Your task to perform on an android device: Go to accessibility settings Image 0: 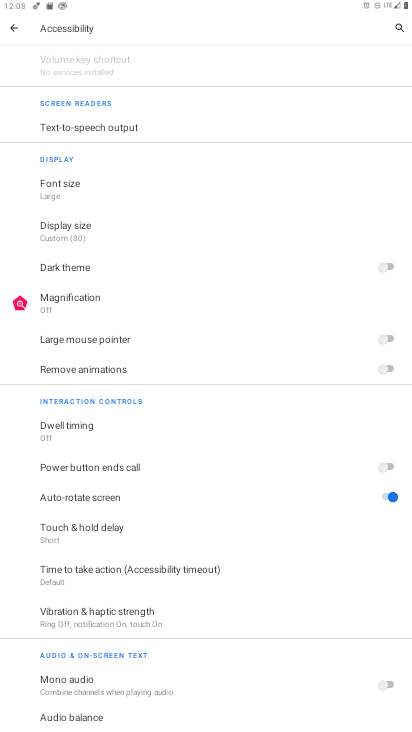
Step 0: press home button
Your task to perform on an android device: Go to accessibility settings Image 1: 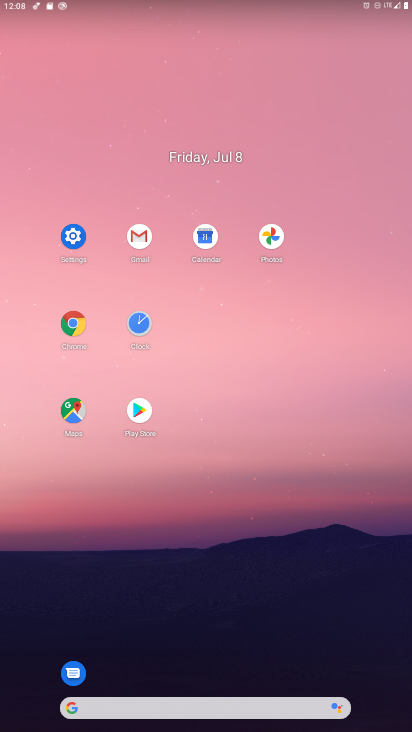
Step 1: click (75, 238)
Your task to perform on an android device: Go to accessibility settings Image 2: 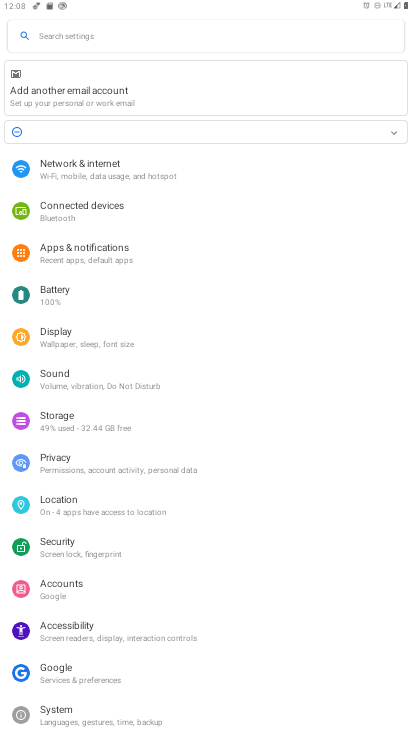
Step 2: drag from (243, 625) to (299, 290)
Your task to perform on an android device: Go to accessibility settings Image 3: 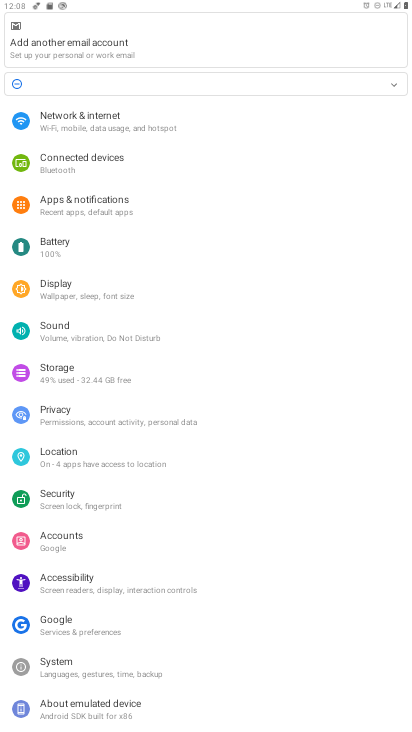
Step 3: click (139, 590)
Your task to perform on an android device: Go to accessibility settings Image 4: 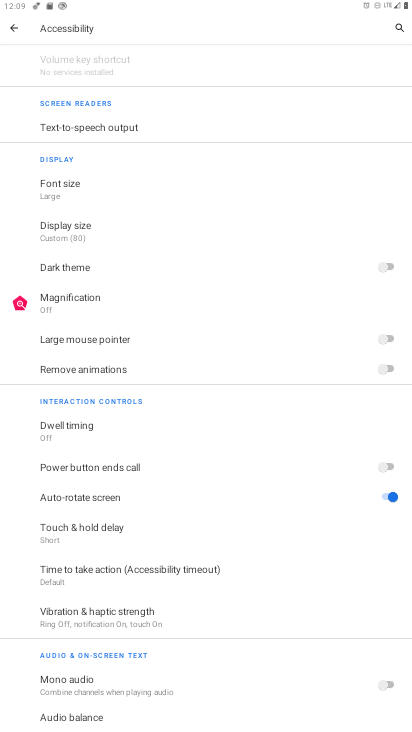
Step 4: drag from (141, 588) to (217, 194)
Your task to perform on an android device: Go to accessibility settings Image 5: 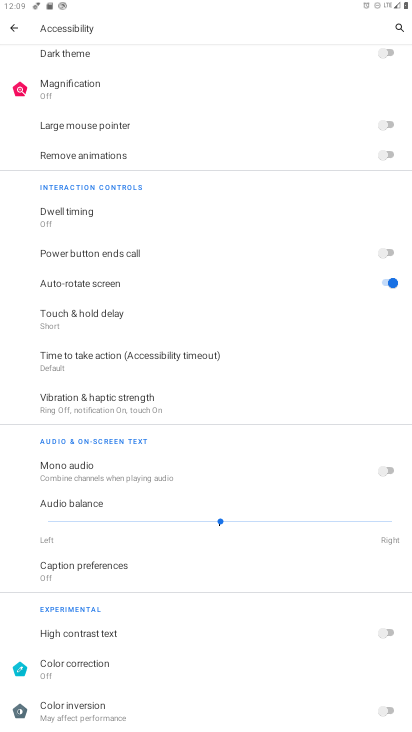
Step 5: press home button
Your task to perform on an android device: Go to accessibility settings Image 6: 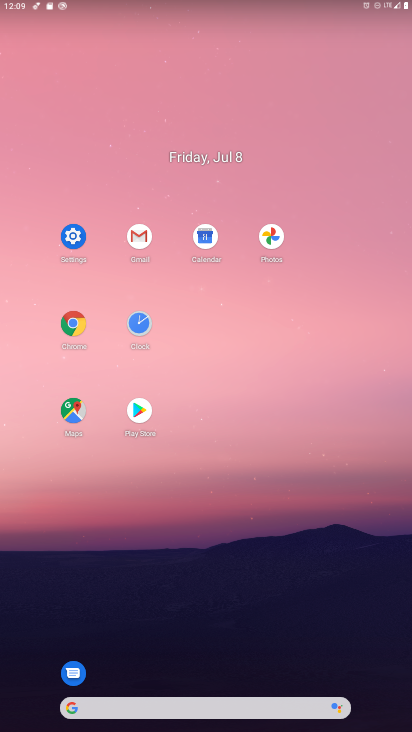
Step 6: click (75, 243)
Your task to perform on an android device: Go to accessibility settings Image 7: 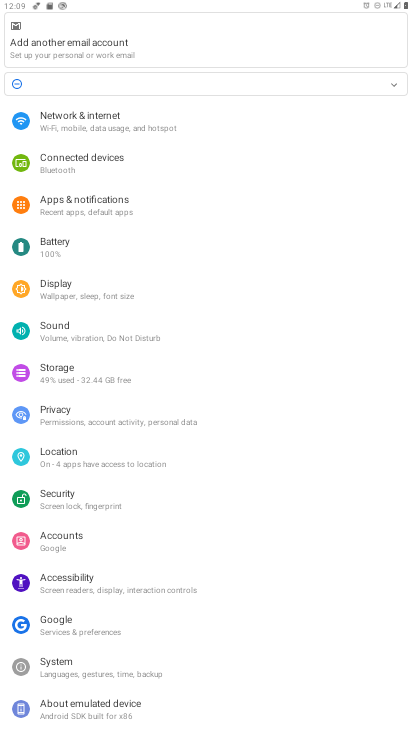
Step 7: drag from (199, 569) to (235, 341)
Your task to perform on an android device: Go to accessibility settings Image 8: 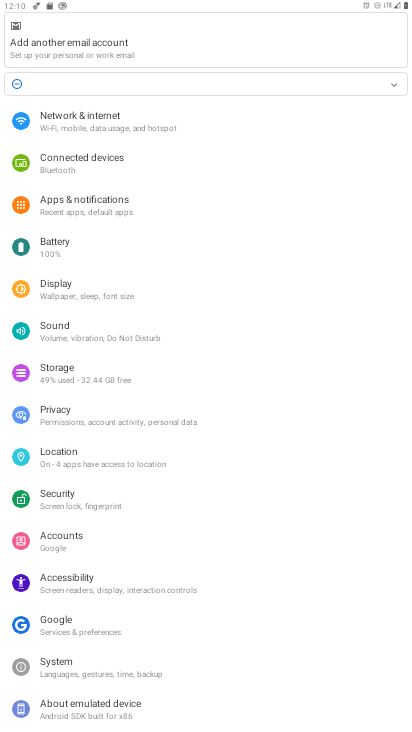
Step 8: click (144, 588)
Your task to perform on an android device: Go to accessibility settings Image 9: 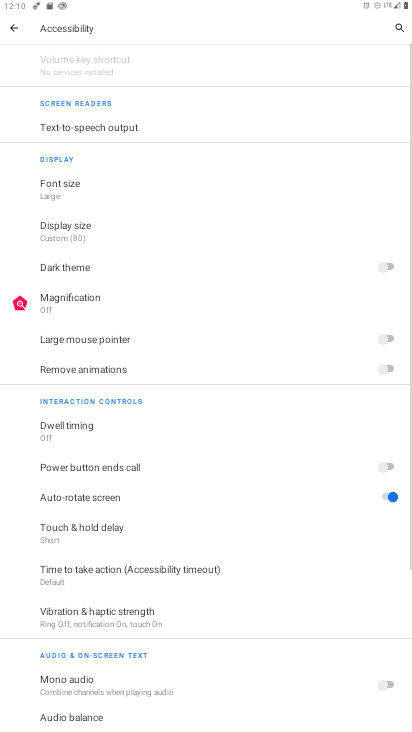
Step 9: task complete